Your task to perform on an android device: Open Chrome and go to settings Image 0: 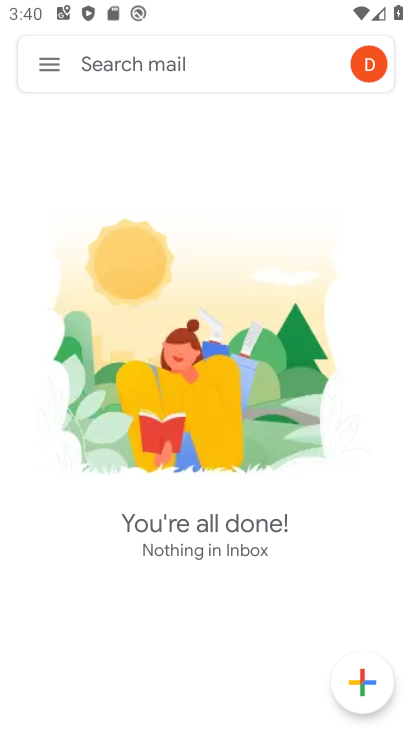
Step 0: press home button
Your task to perform on an android device: Open Chrome and go to settings Image 1: 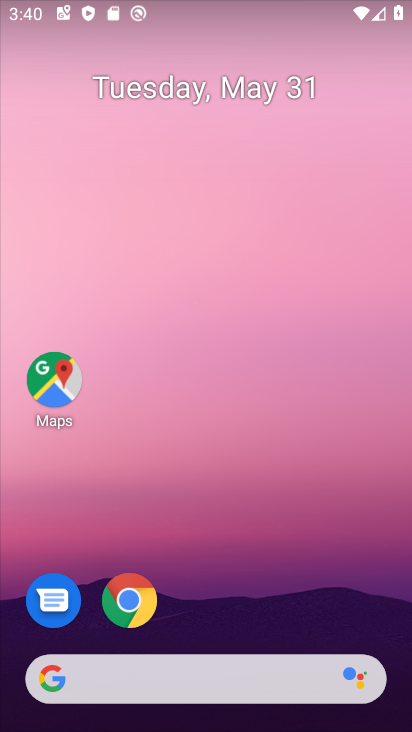
Step 1: drag from (225, 392) to (225, 48)
Your task to perform on an android device: Open Chrome and go to settings Image 2: 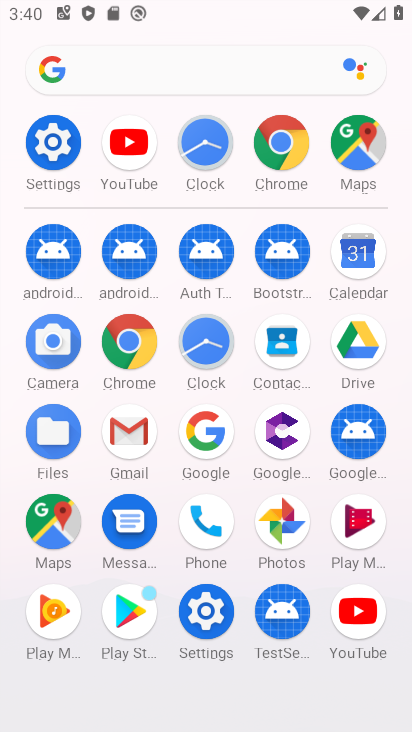
Step 2: click (44, 139)
Your task to perform on an android device: Open Chrome and go to settings Image 3: 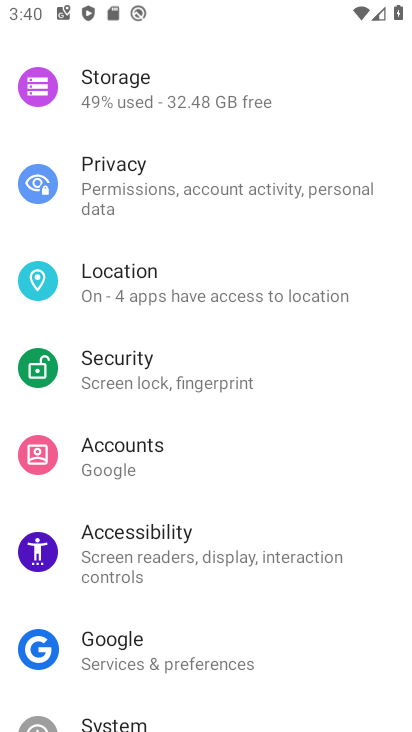
Step 3: press home button
Your task to perform on an android device: Open Chrome and go to settings Image 4: 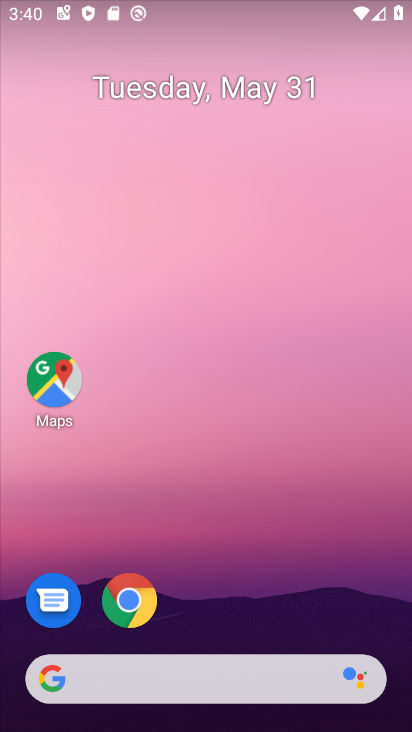
Step 4: click (132, 597)
Your task to perform on an android device: Open Chrome and go to settings Image 5: 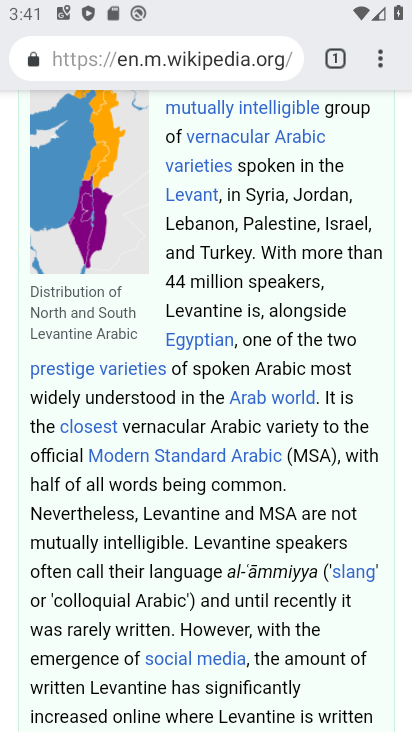
Step 5: click (370, 56)
Your task to perform on an android device: Open Chrome and go to settings Image 6: 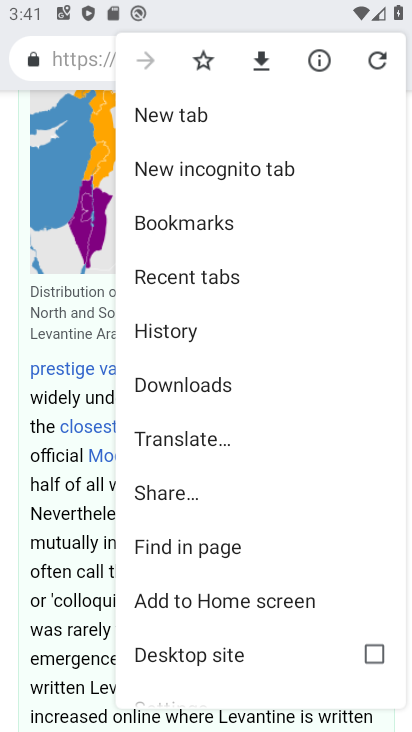
Step 6: drag from (238, 557) to (268, 264)
Your task to perform on an android device: Open Chrome and go to settings Image 7: 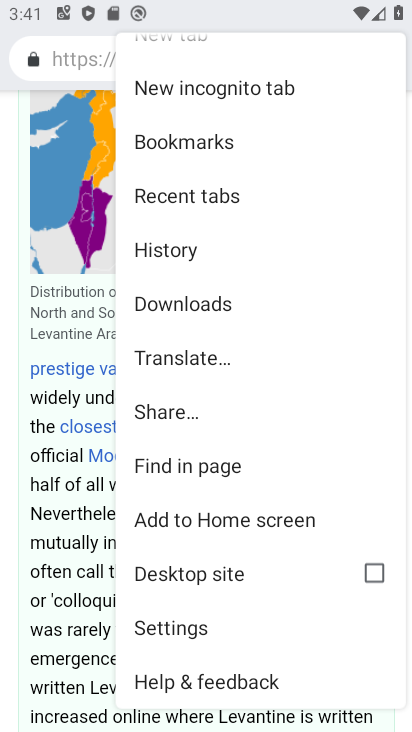
Step 7: click (216, 626)
Your task to perform on an android device: Open Chrome and go to settings Image 8: 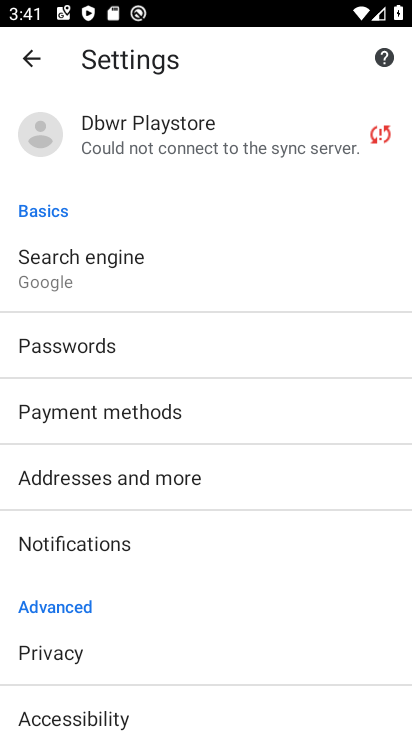
Step 8: task complete